Your task to perform on an android device: Go to network settings Image 0: 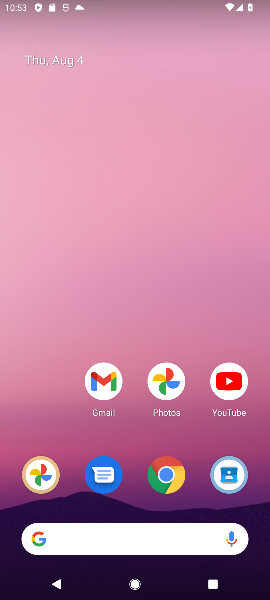
Step 0: drag from (135, 440) to (54, 127)
Your task to perform on an android device: Go to network settings Image 1: 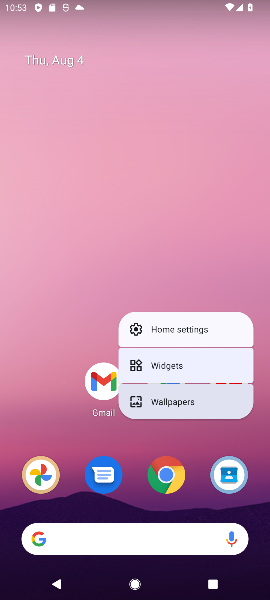
Step 1: click (59, 384)
Your task to perform on an android device: Go to network settings Image 2: 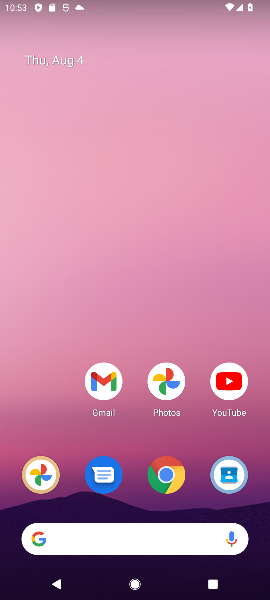
Step 2: drag from (145, 354) to (91, 101)
Your task to perform on an android device: Go to network settings Image 3: 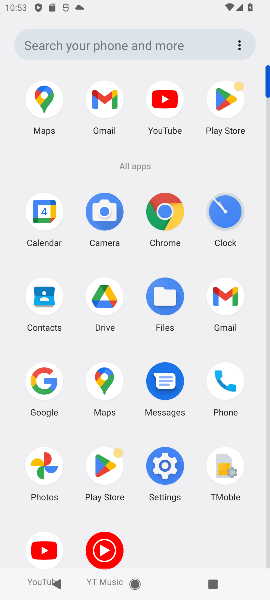
Step 3: click (173, 457)
Your task to perform on an android device: Go to network settings Image 4: 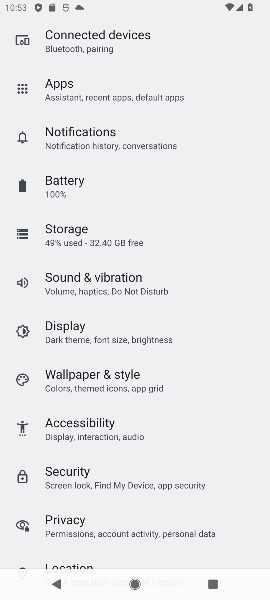
Step 4: drag from (79, 67) to (165, 353)
Your task to perform on an android device: Go to network settings Image 5: 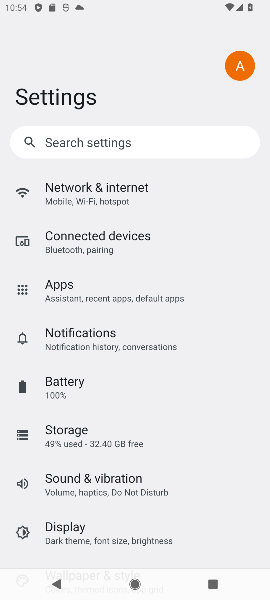
Step 5: click (93, 191)
Your task to perform on an android device: Go to network settings Image 6: 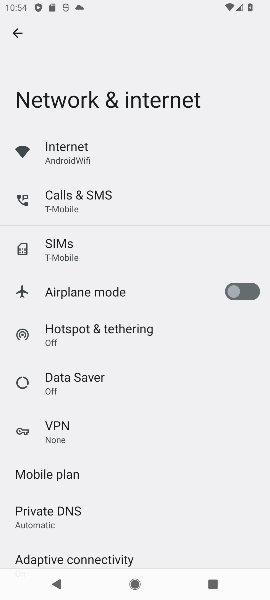
Step 6: task complete